Your task to perform on an android device: all mails in gmail Image 0: 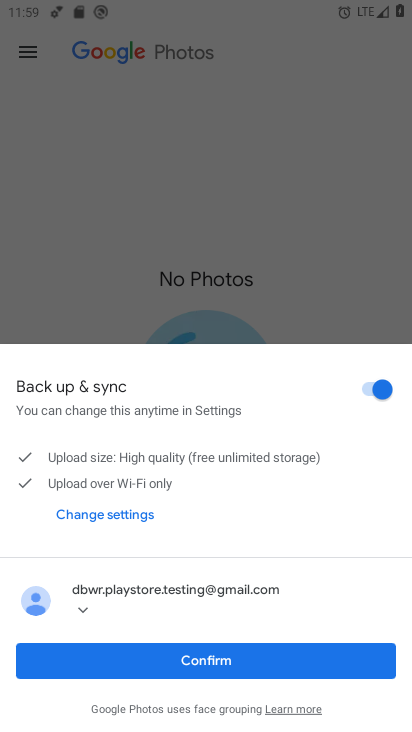
Step 0: press home button
Your task to perform on an android device: all mails in gmail Image 1: 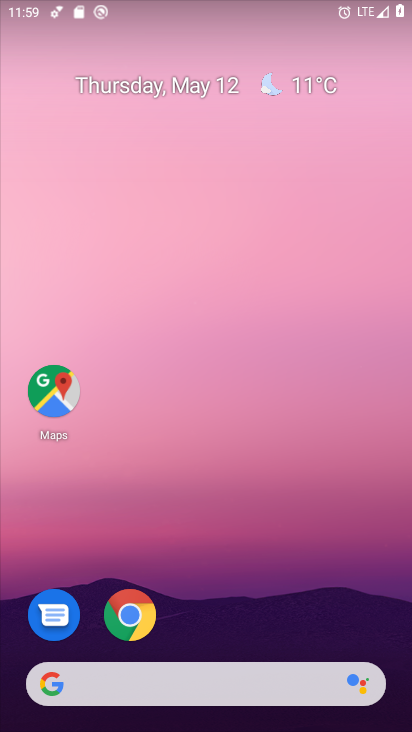
Step 1: drag from (245, 543) to (253, 57)
Your task to perform on an android device: all mails in gmail Image 2: 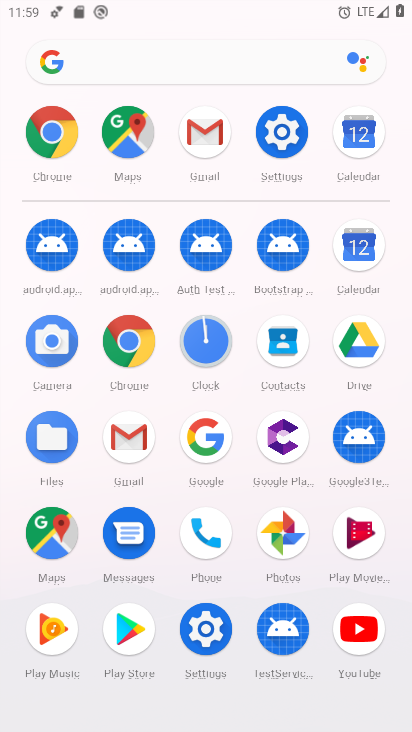
Step 2: click (212, 139)
Your task to perform on an android device: all mails in gmail Image 3: 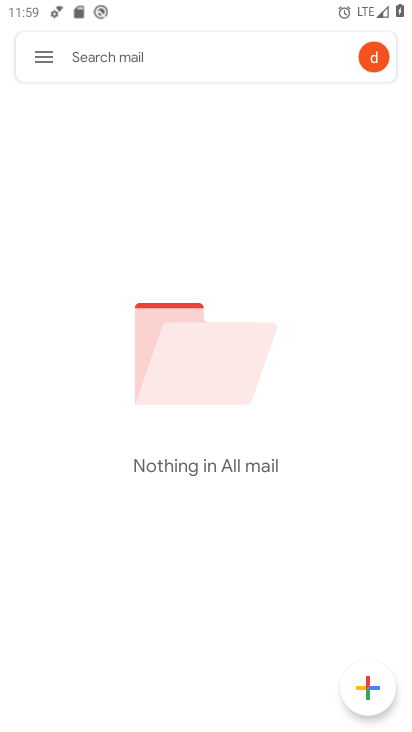
Step 3: task complete